Your task to perform on an android device: Find coffee shops on Maps Image 0: 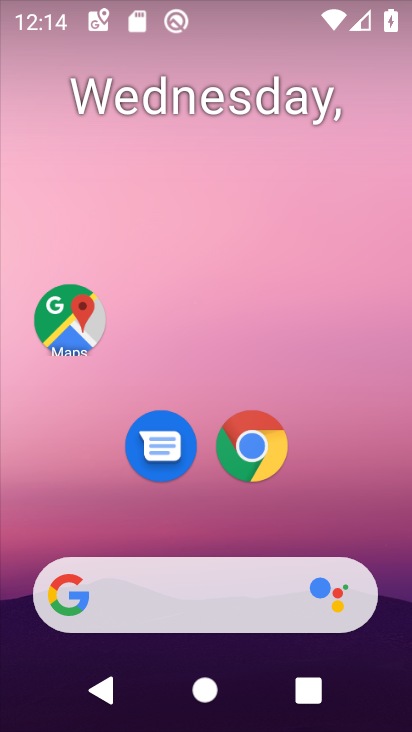
Step 0: click (71, 328)
Your task to perform on an android device: Find coffee shops on Maps Image 1: 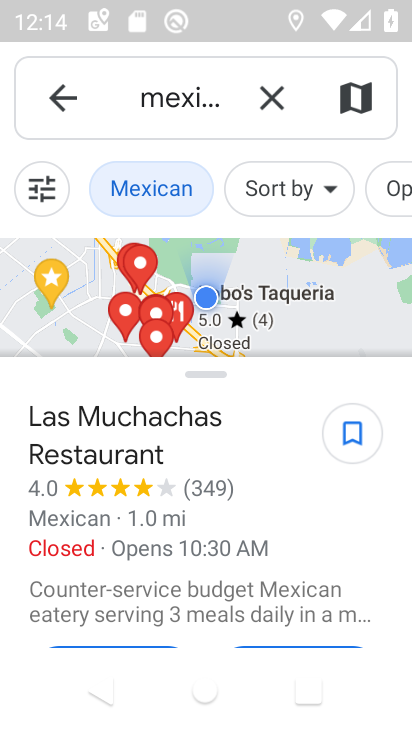
Step 1: click (260, 100)
Your task to perform on an android device: Find coffee shops on Maps Image 2: 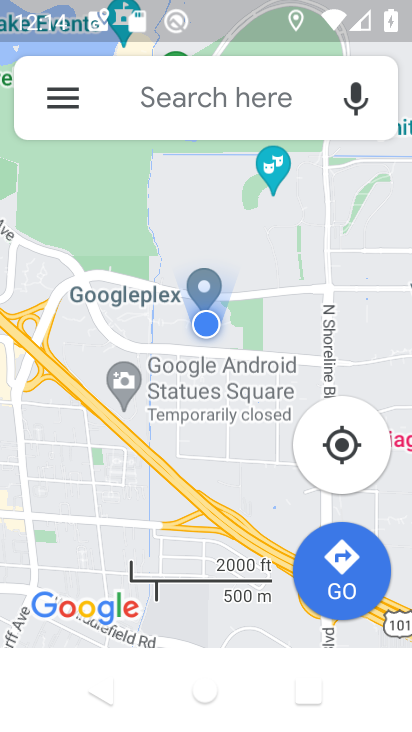
Step 2: click (162, 101)
Your task to perform on an android device: Find coffee shops on Maps Image 3: 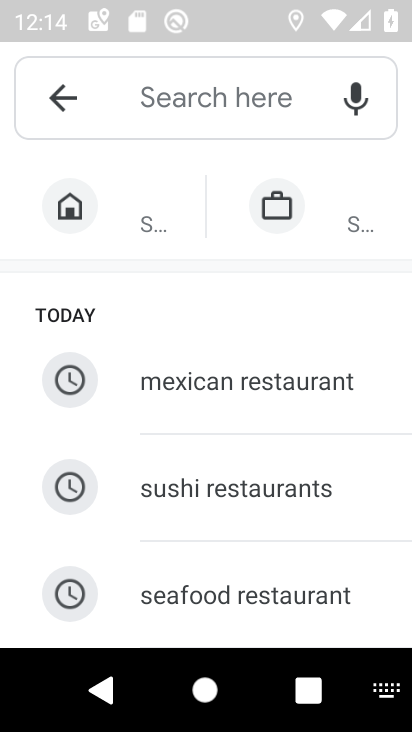
Step 3: type "coffee shop"
Your task to perform on an android device: Find coffee shops on Maps Image 4: 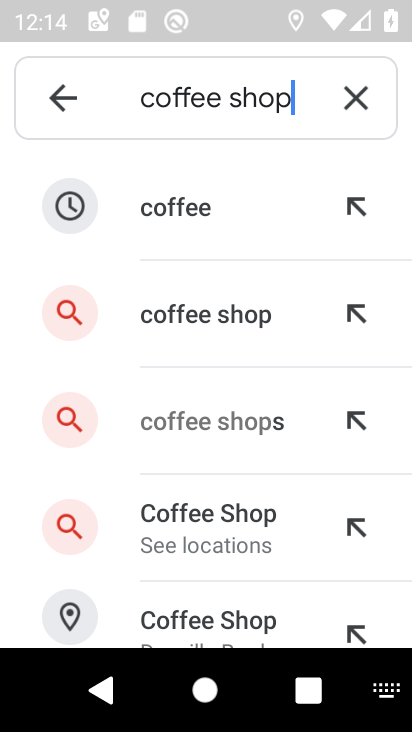
Step 4: click (172, 315)
Your task to perform on an android device: Find coffee shops on Maps Image 5: 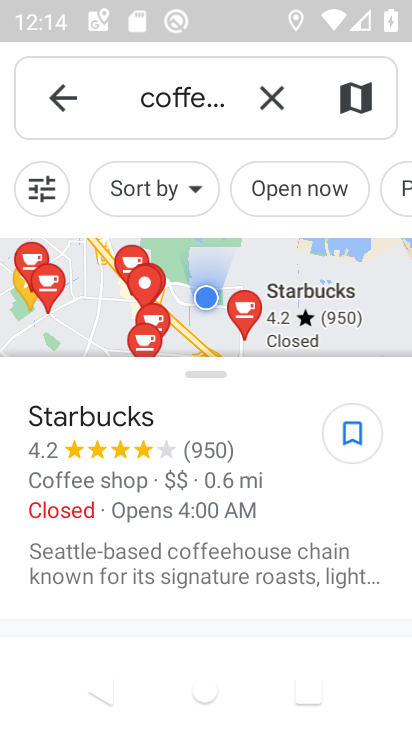
Step 5: task complete